Your task to perform on an android device: open app "Etsy: Buy & Sell Unique Items" Image 0: 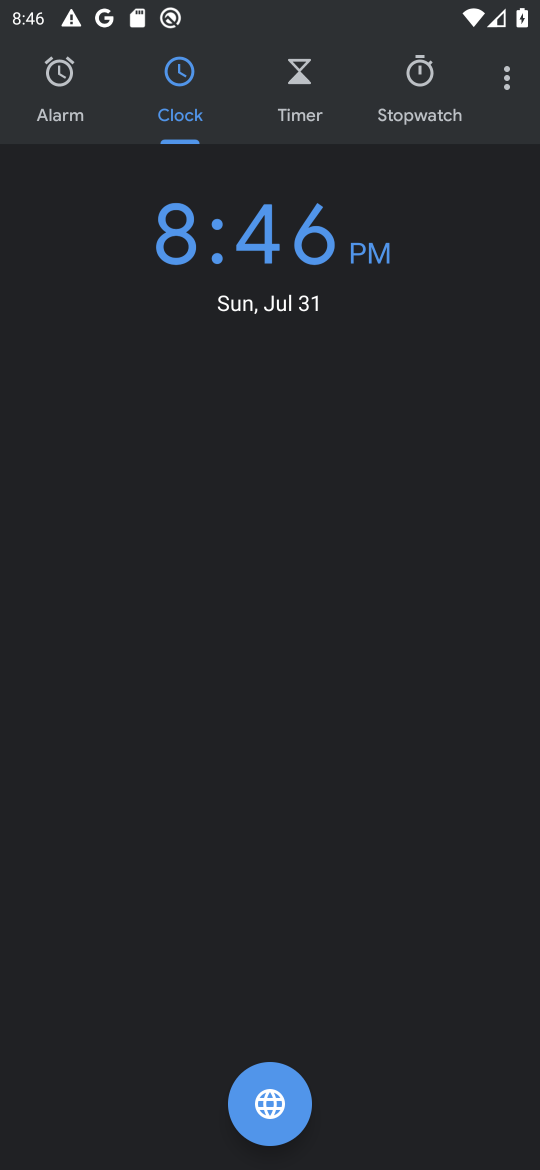
Step 0: press home button
Your task to perform on an android device: open app "Etsy: Buy & Sell Unique Items" Image 1: 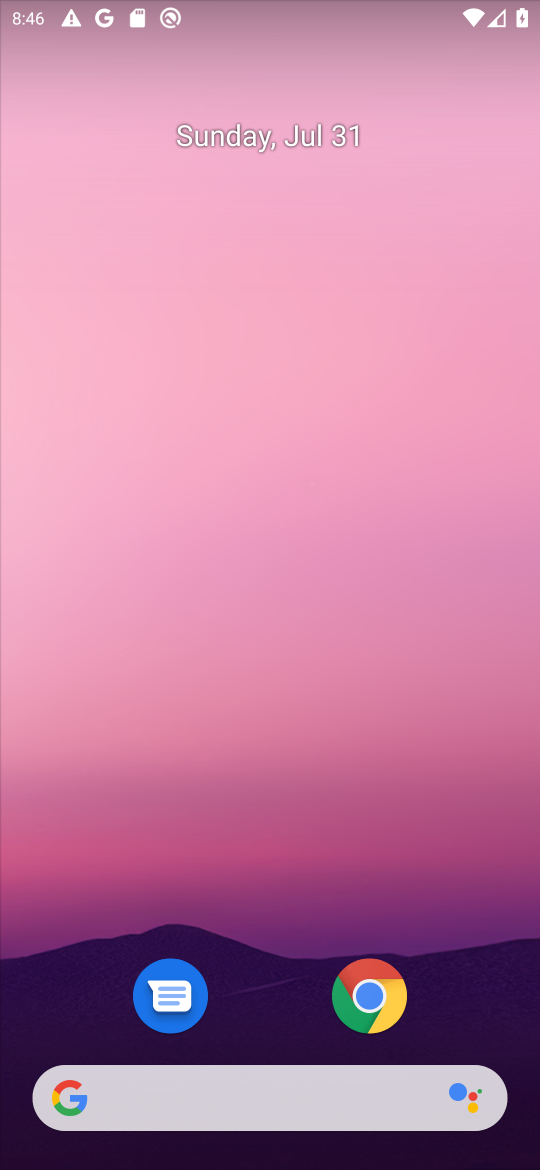
Step 1: drag from (452, 823) to (422, 87)
Your task to perform on an android device: open app "Etsy: Buy & Sell Unique Items" Image 2: 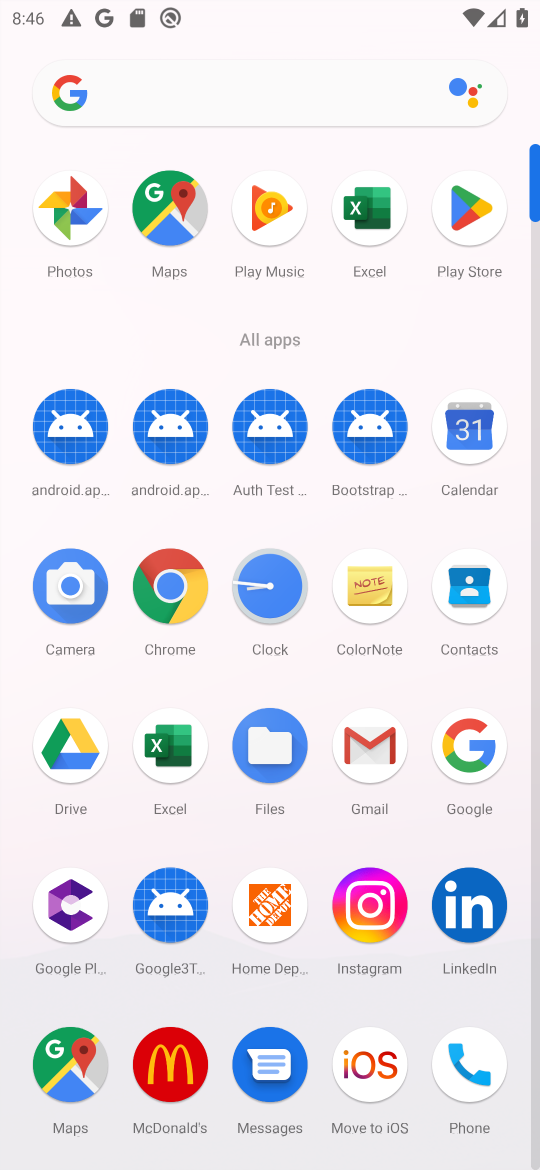
Step 2: click (457, 209)
Your task to perform on an android device: open app "Etsy: Buy & Sell Unique Items" Image 3: 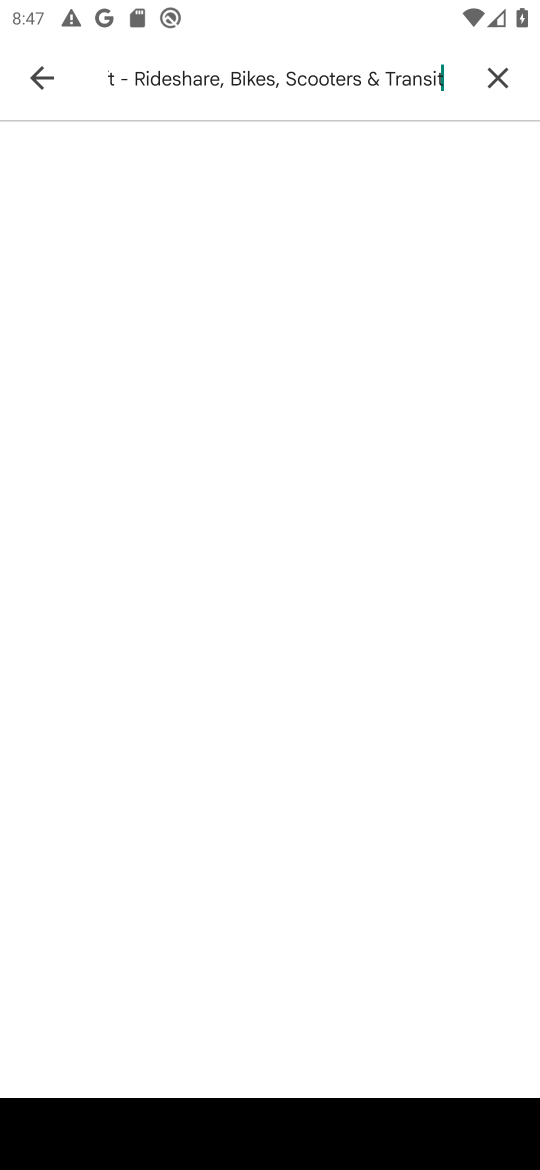
Step 3: click (510, 70)
Your task to perform on an android device: open app "Etsy: Buy & Sell Unique Items" Image 4: 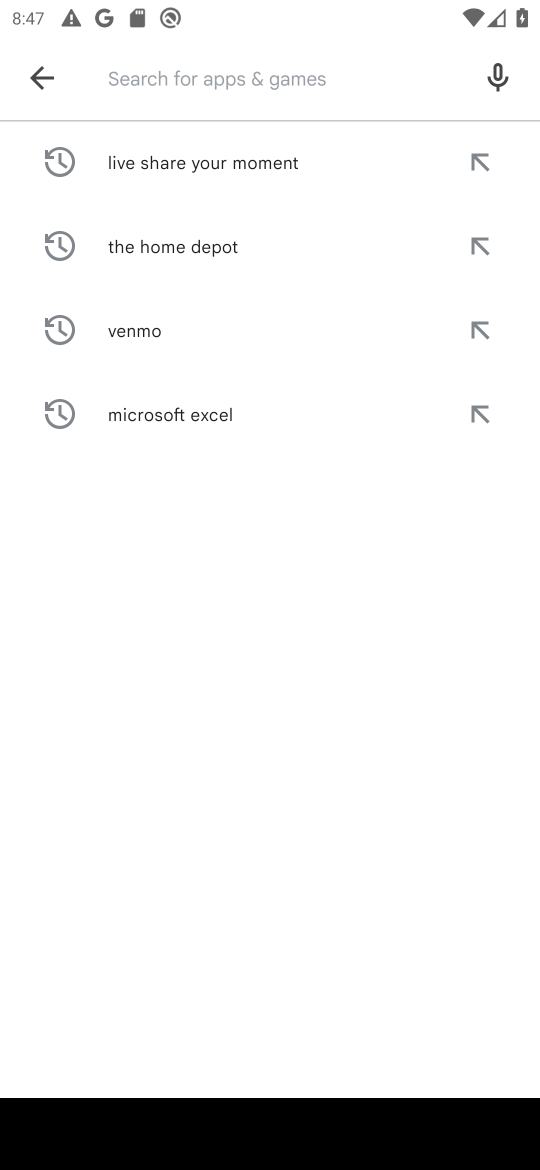
Step 4: click (266, 81)
Your task to perform on an android device: open app "Etsy: Buy & Sell Unique Items" Image 5: 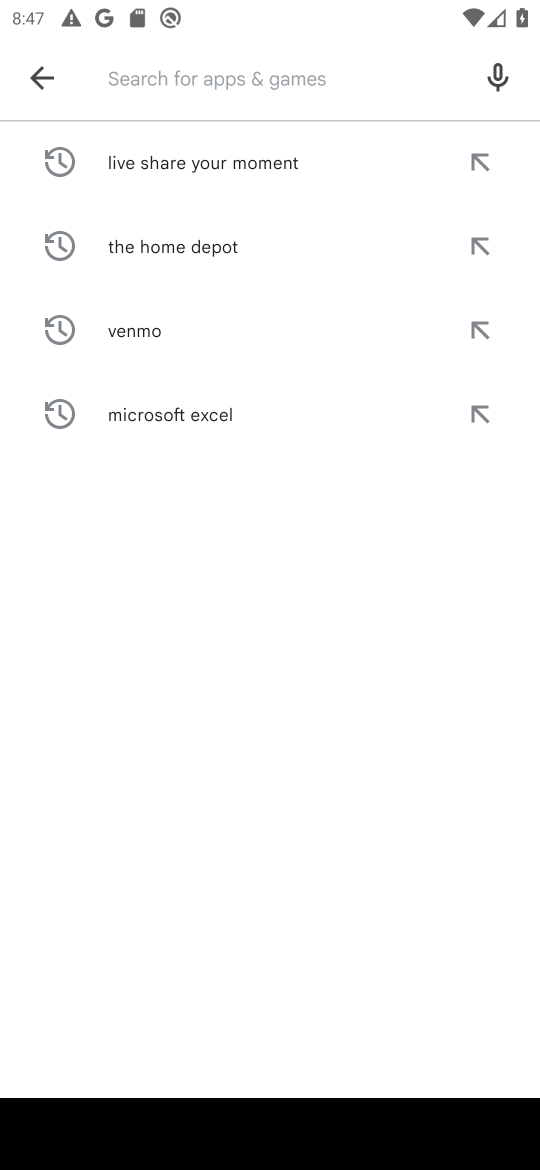
Step 5: type "Etsy: Buy & Sell Unique Items"
Your task to perform on an android device: open app "Etsy: Buy & Sell Unique Items" Image 6: 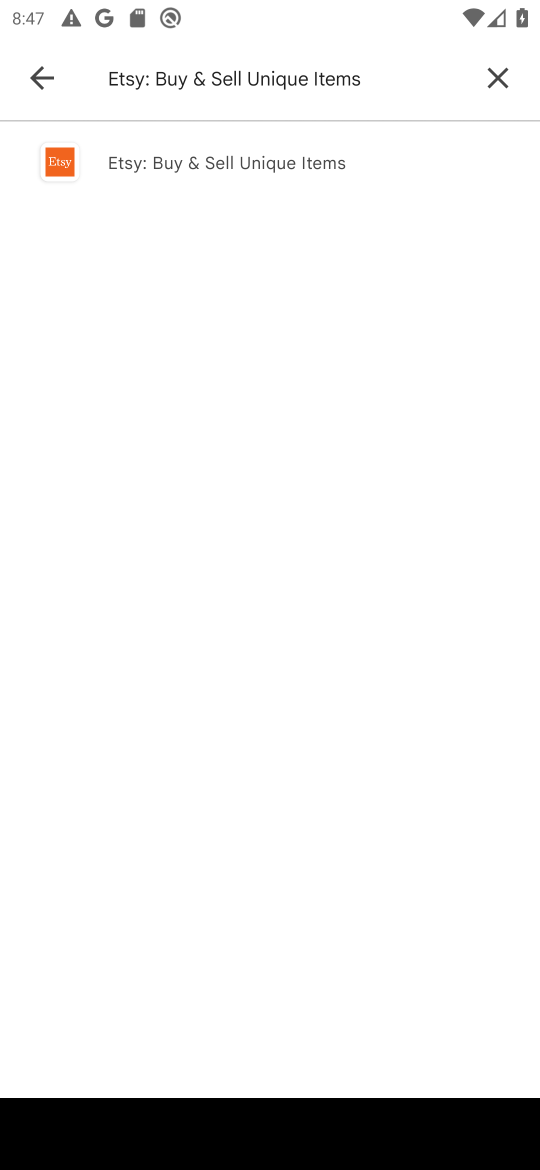
Step 6: click (227, 161)
Your task to perform on an android device: open app "Etsy: Buy & Sell Unique Items" Image 7: 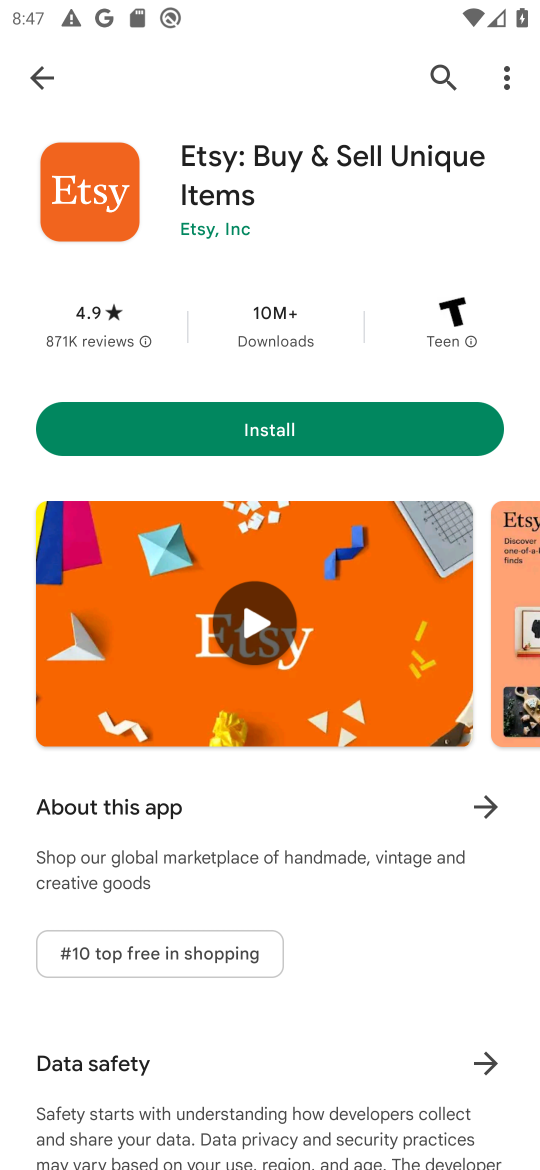
Step 7: task complete